Your task to perform on an android device: Open Amazon Image 0: 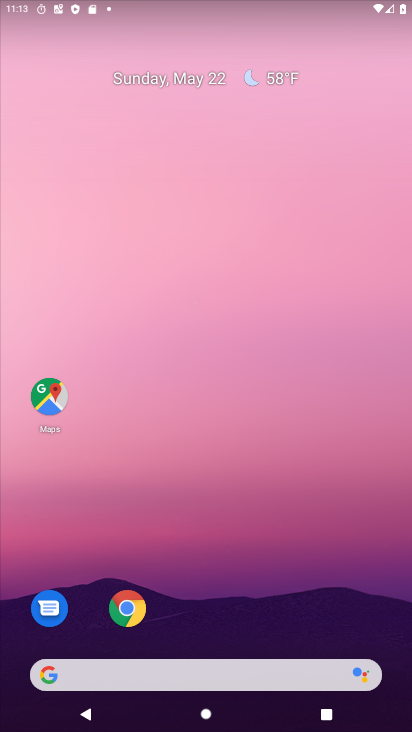
Step 0: click (128, 608)
Your task to perform on an android device: Open Amazon Image 1: 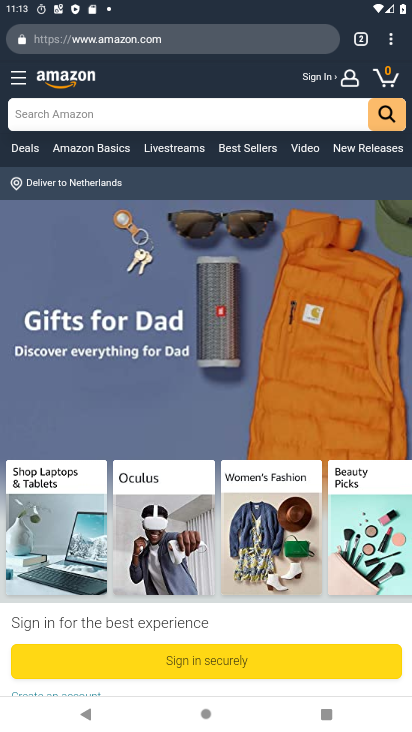
Step 1: task complete